Your task to perform on an android device: Find coffee shops on Maps Image 0: 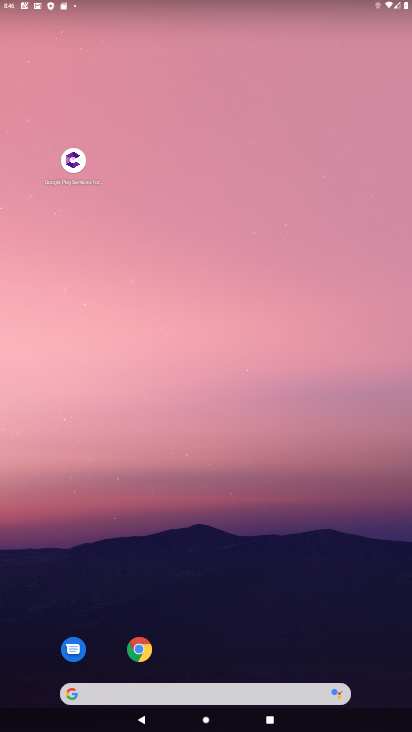
Step 0: drag from (245, 514) to (275, 152)
Your task to perform on an android device: Find coffee shops on Maps Image 1: 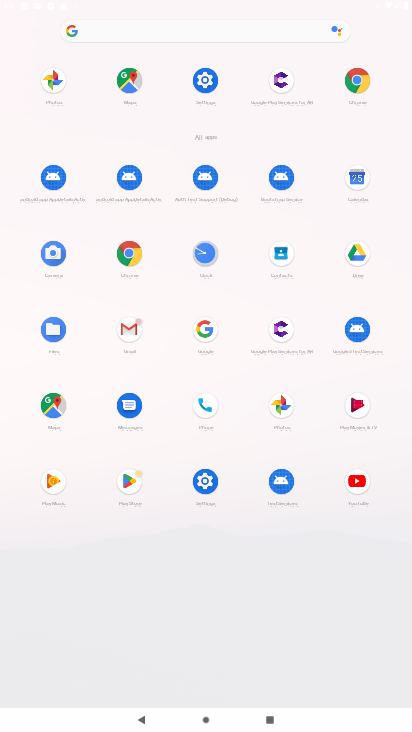
Step 1: click (122, 75)
Your task to perform on an android device: Find coffee shops on Maps Image 2: 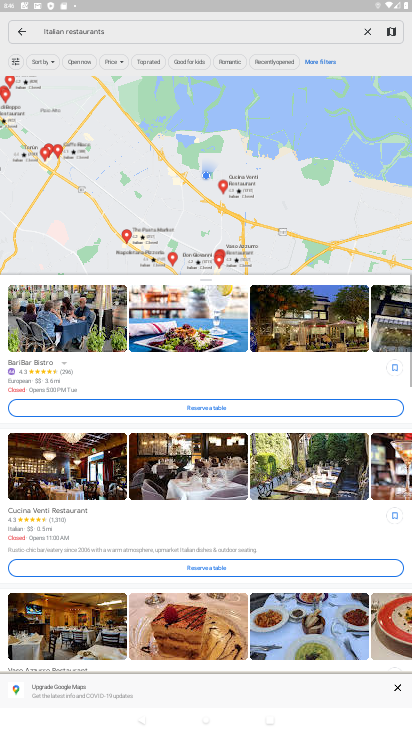
Step 2: click (366, 30)
Your task to perform on an android device: Find coffee shops on Maps Image 3: 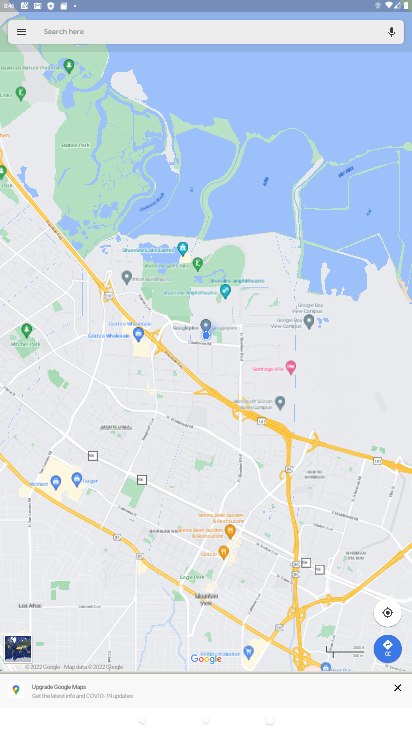
Step 3: click (235, 33)
Your task to perform on an android device: Find coffee shops on Maps Image 4: 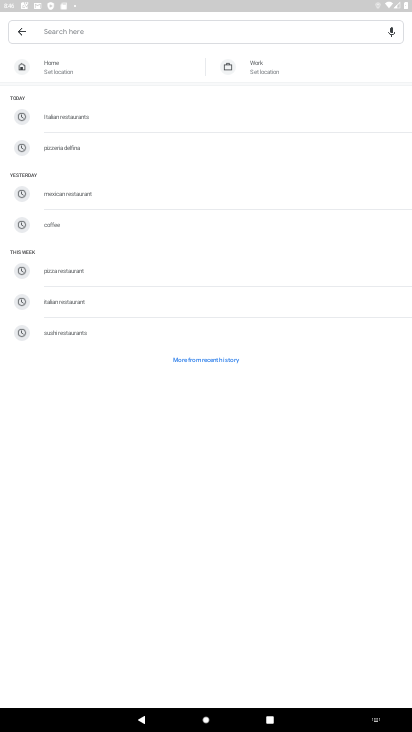
Step 4: type "coffee shops"
Your task to perform on an android device: Find coffee shops on Maps Image 5: 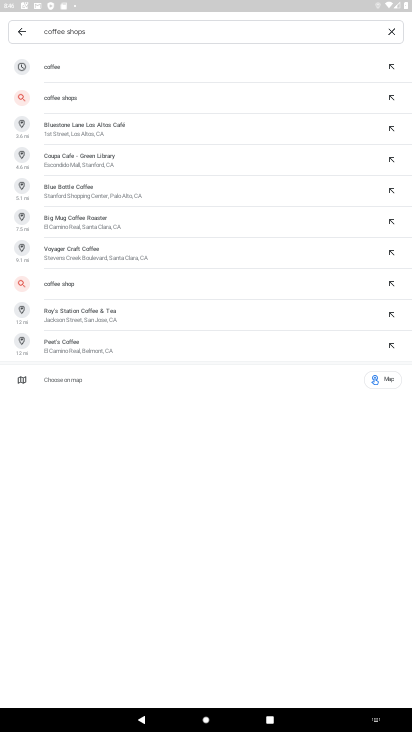
Step 5: press enter
Your task to perform on an android device: Find coffee shops on Maps Image 6: 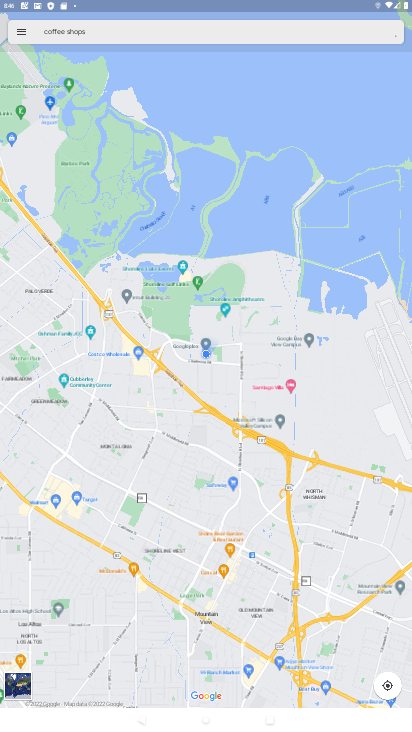
Step 6: task complete